Your task to perform on an android device: turn vacation reply on in the gmail app Image 0: 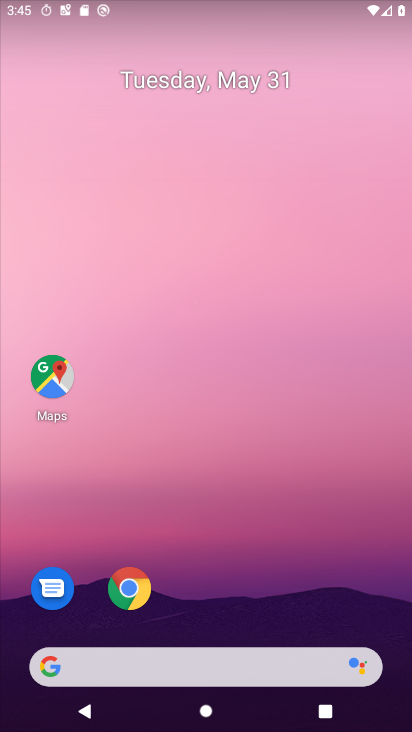
Step 0: drag from (261, 664) to (249, 193)
Your task to perform on an android device: turn vacation reply on in the gmail app Image 1: 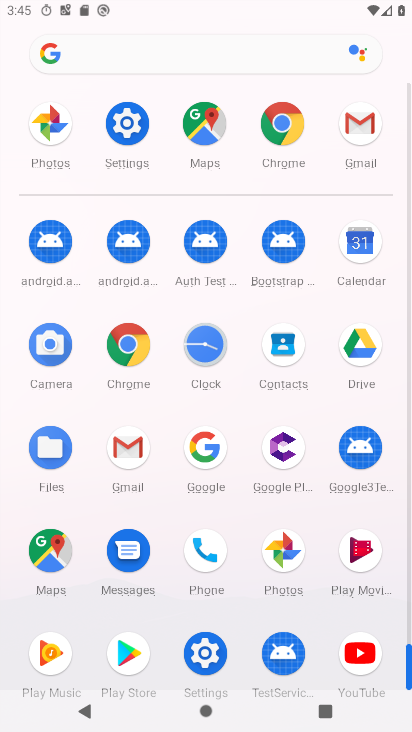
Step 1: click (140, 459)
Your task to perform on an android device: turn vacation reply on in the gmail app Image 2: 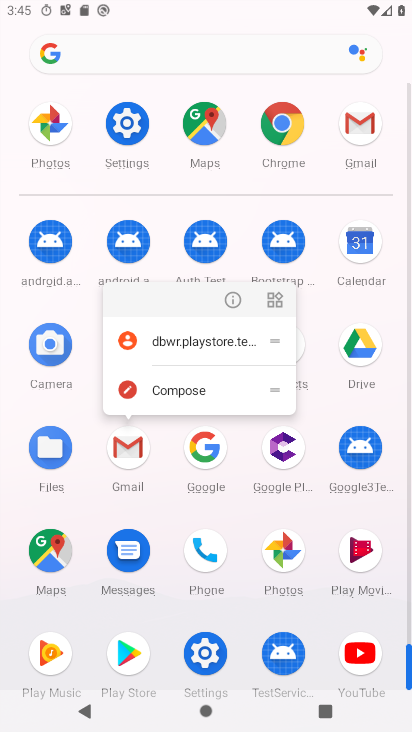
Step 2: click (143, 458)
Your task to perform on an android device: turn vacation reply on in the gmail app Image 3: 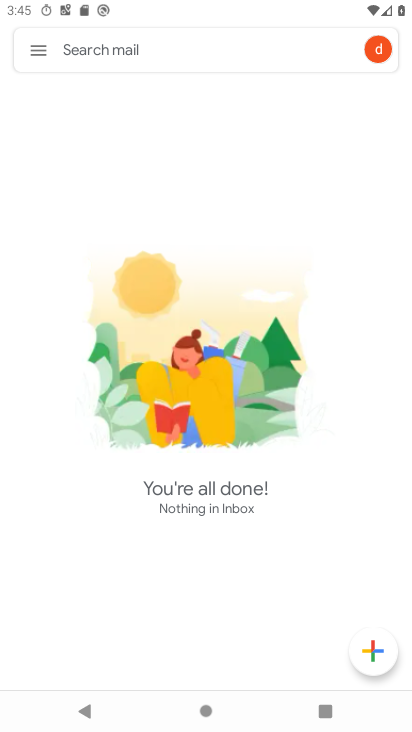
Step 3: click (35, 52)
Your task to perform on an android device: turn vacation reply on in the gmail app Image 4: 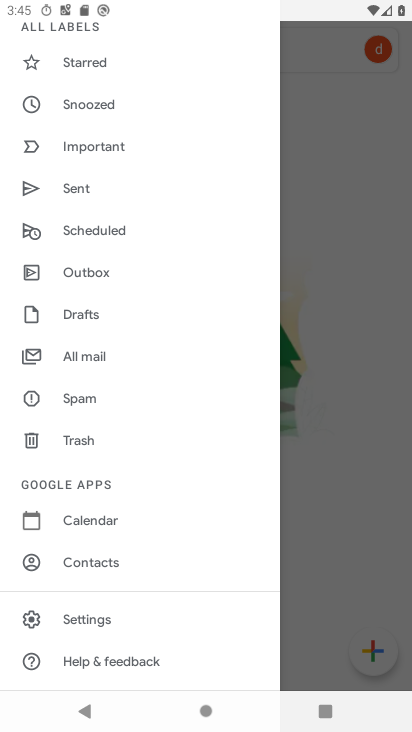
Step 4: click (90, 612)
Your task to perform on an android device: turn vacation reply on in the gmail app Image 5: 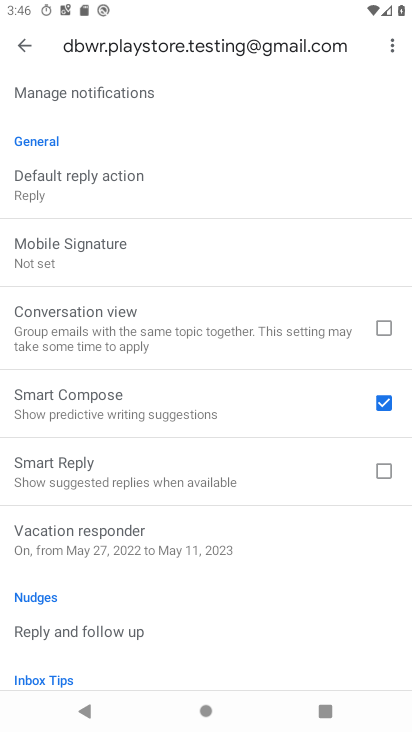
Step 5: click (123, 548)
Your task to perform on an android device: turn vacation reply on in the gmail app Image 6: 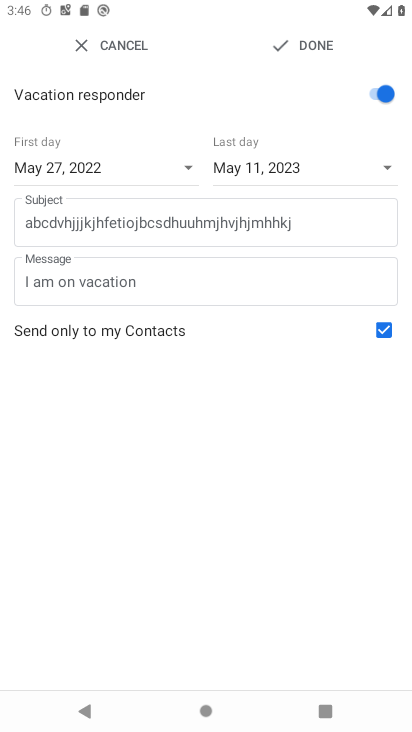
Step 6: task complete